Your task to perform on an android device: turn on priority inbox in the gmail app Image 0: 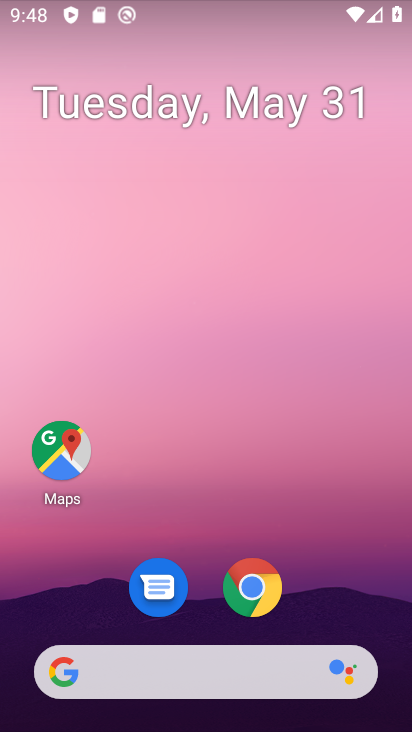
Step 0: press home button
Your task to perform on an android device: turn on priority inbox in the gmail app Image 1: 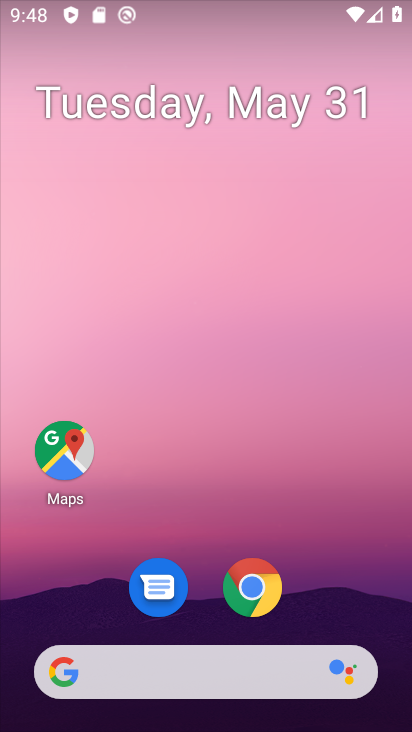
Step 1: drag from (206, 627) to (254, 1)
Your task to perform on an android device: turn on priority inbox in the gmail app Image 2: 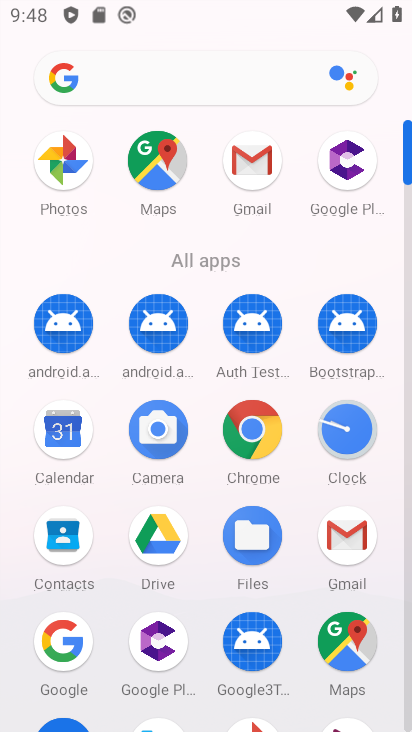
Step 2: click (347, 533)
Your task to perform on an android device: turn on priority inbox in the gmail app Image 3: 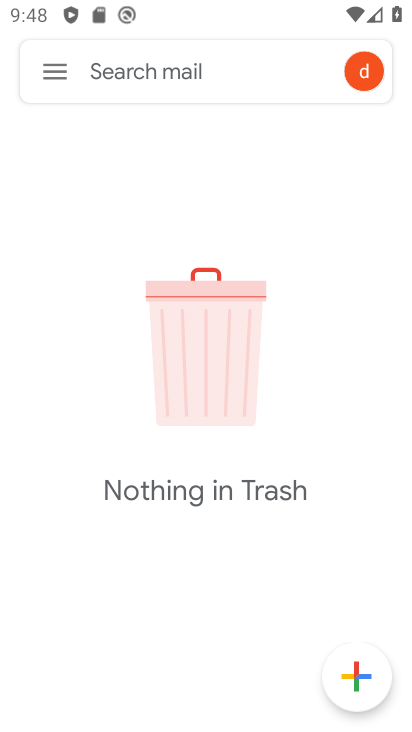
Step 3: click (50, 55)
Your task to perform on an android device: turn on priority inbox in the gmail app Image 4: 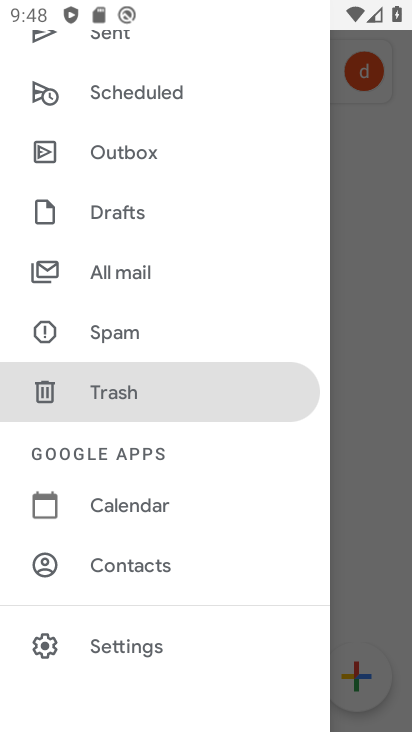
Step 4: click (168, 640)
Your task to perform on an android device: turn on priority inbox in the gmail app Image 5: 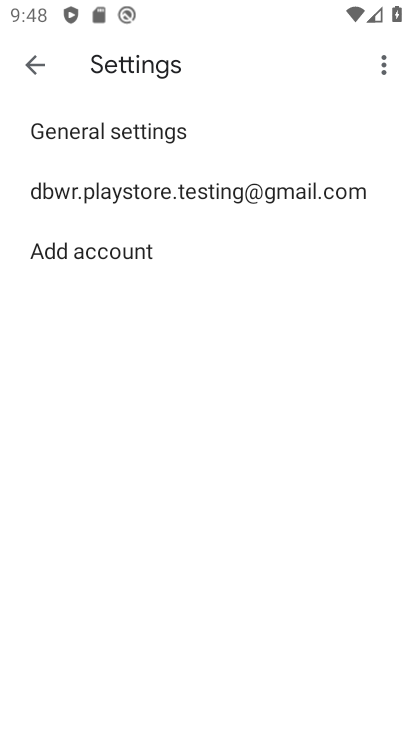
Step 5: click (223, 184)
Your task to perform on an android device: turn on priority inbox in the gmail app Image 6: 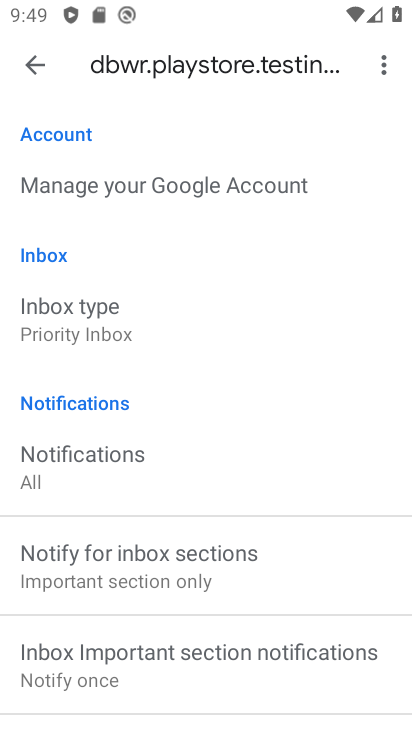
Step 6: click (105, 331)
Your task to perform on an android device: turn on priority inbox in the gmail app Image 7: 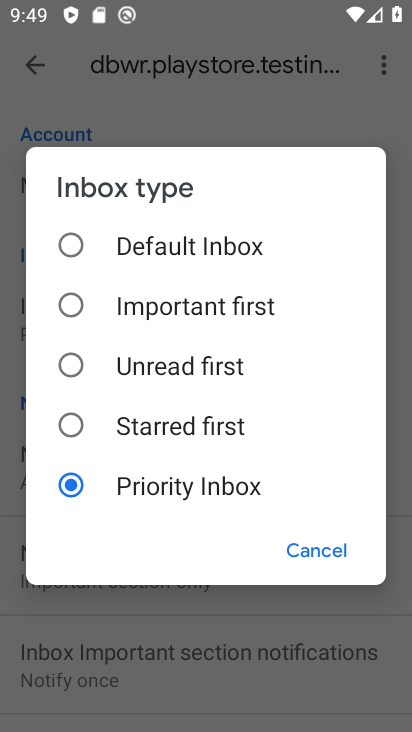
Step 7: click (97, 482)
Your task to perform on an android device: turn on priority inbox in the gmail app Image 8: 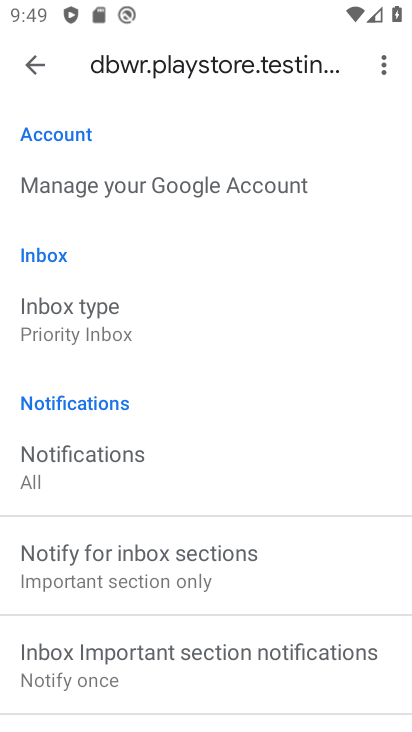
Step 8: task complete